Your task to perform on an android device: toggle data saver in the chrome app Image 0: 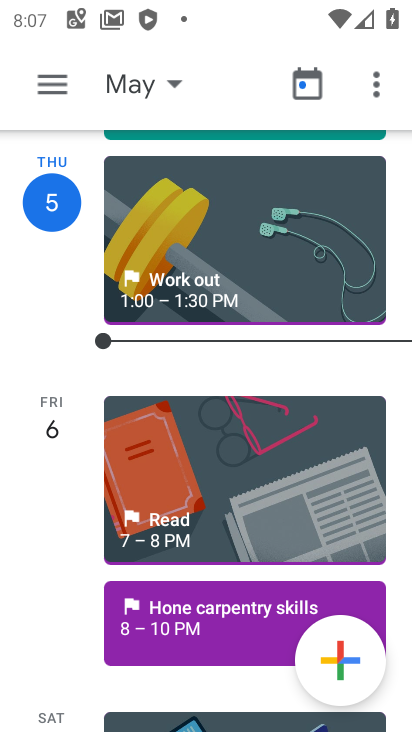
Step 0: press home button
Your task to perform on an android device: toggle data saver in the chrome app Image 1: 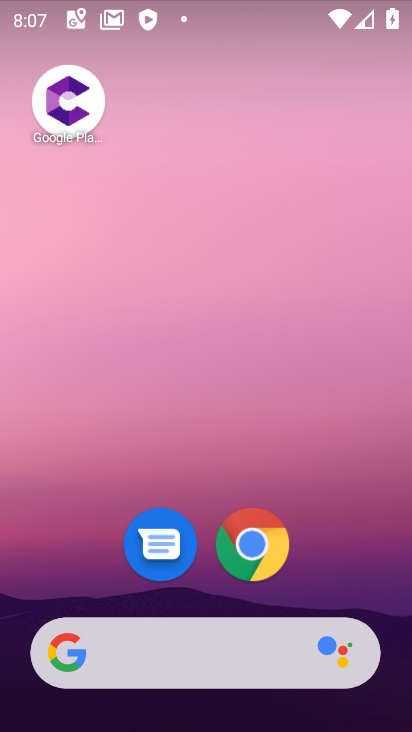
Step 1: drag from (390, 637) to (323, 144)
Your task to perform on an android device: toggle data saver in the chrome app Image 2: 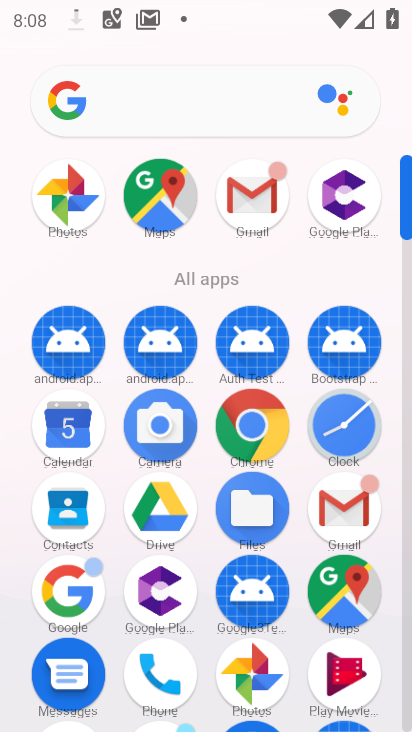
Step 2: click (244, 430)
Your task to perform on an android device: toggle data saver in the chrome app Image 3: 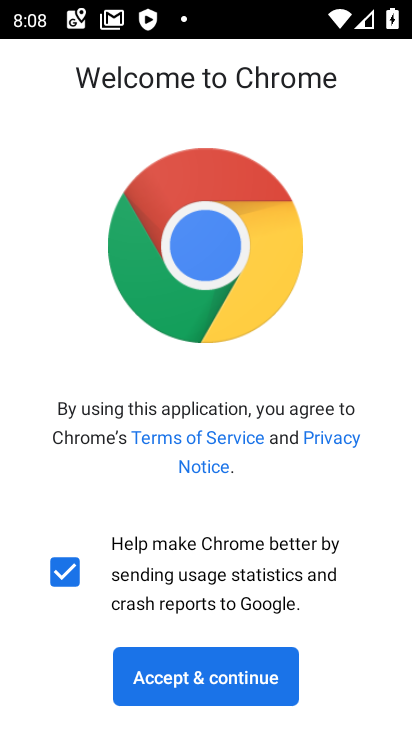
Step 3: click (230, 664)
Your task to perform on an android device: toggle data saver in the chrome app Image 4: 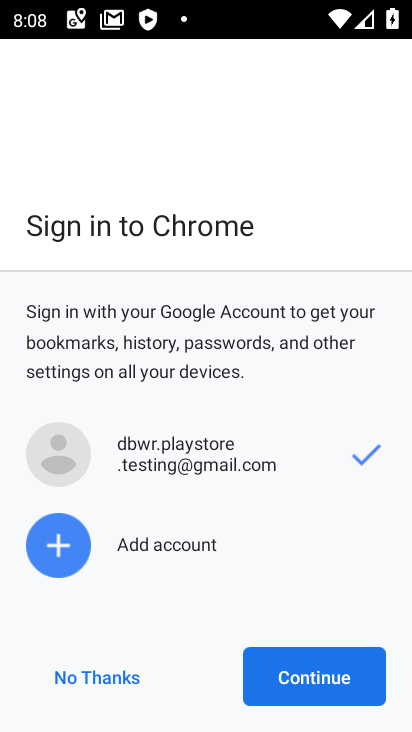
Step 4: click (309, 671)
Your task to perform on an android device: toggle data saver in the chrome app Image 5: 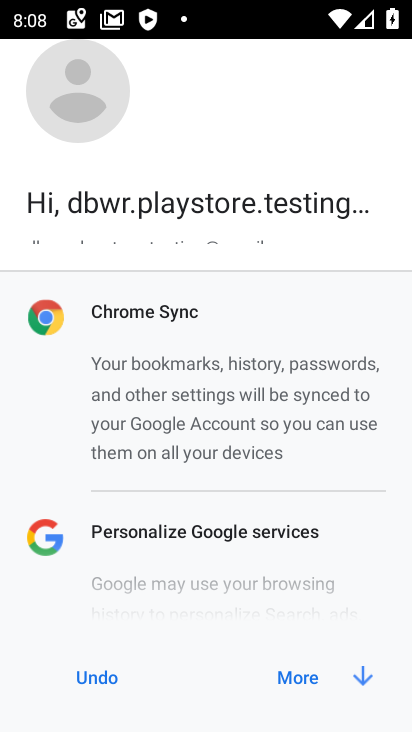
Step 5: click (283, 675)
Your task to perform on an android device: toggle data saver in the chrome app Image 6: 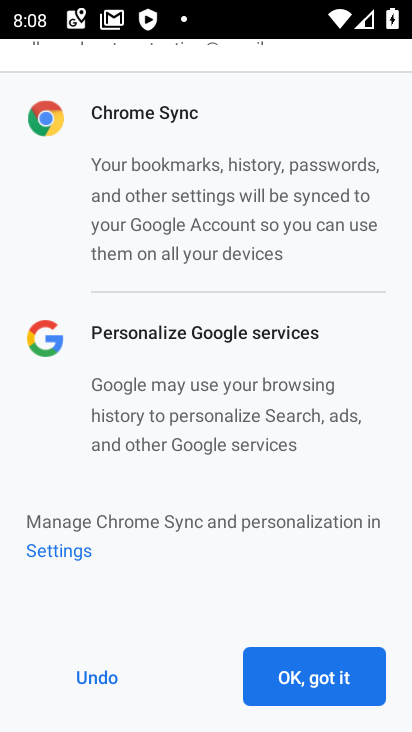
Step 6: click (283, 675)
Your task to perform on an android device: toggle data saver in the chrome app Image 7: 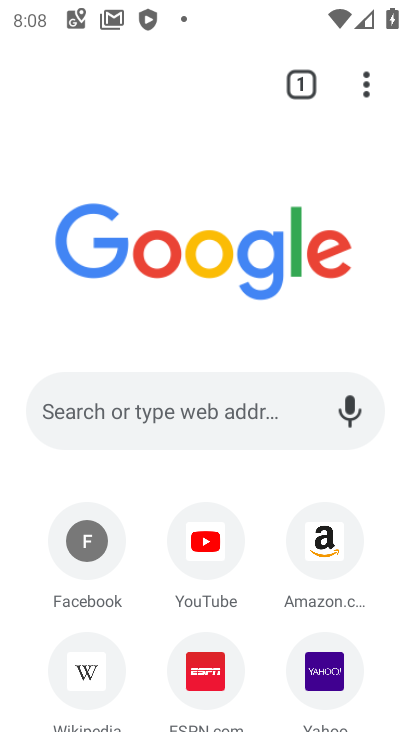
Step 7: click (363, 75)
Your task to perform on an android device: toggle data saver in the chrome app Image 8: 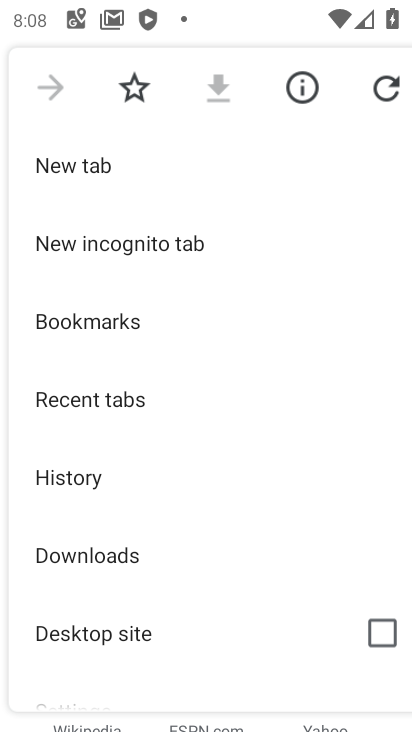
Step 8: drag from (138, 625) to (210, 200)
Your task to perform on an android device: toggle data saver in the chrome app Image 9: 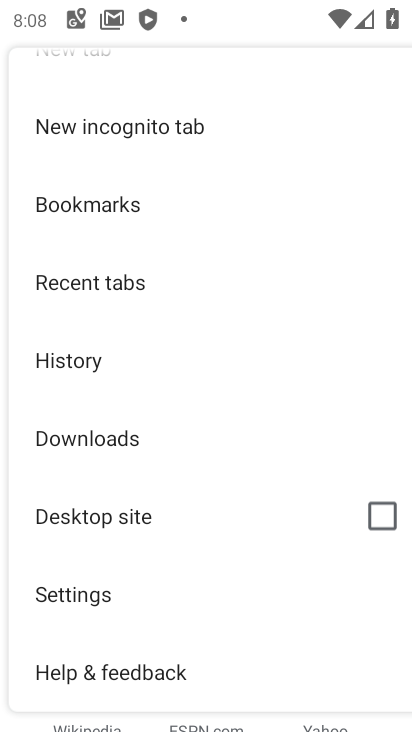
Step 9: click (66, 589)
Your task to perform on an android device: toggle data saver in the chrome app Image 10: 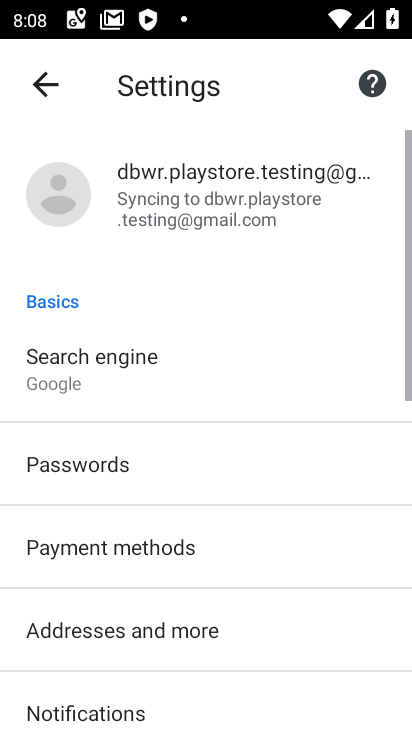
Step 10: drag from (135, 660) to (174, 189)
Your task to perform on an android device: toggle data saver in the chrome app Image 11: 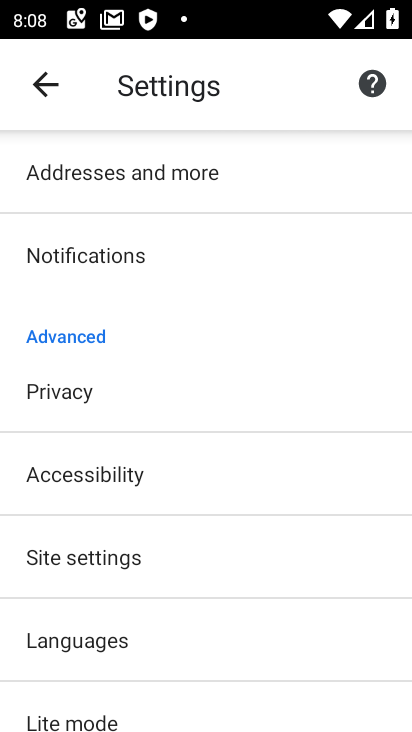
Step 11: drag from (96, 677) to (154, 462)
Your task to perform on an android device: toggle data saver in the chrome app Image 12: 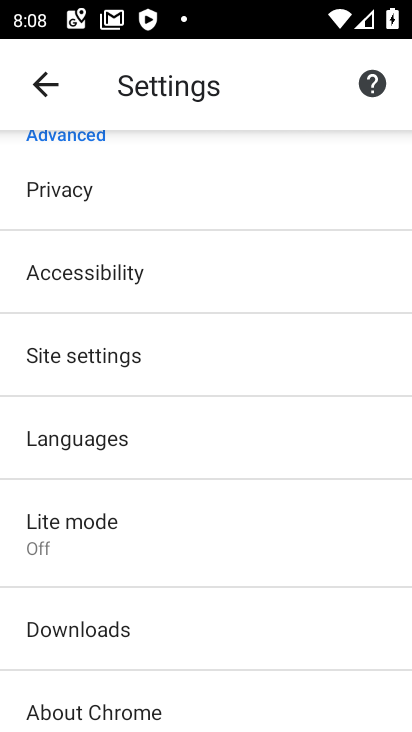
Step 12: click (175, 544)
Your task to perform on an android device: toggle data saver in the chrome app Image 13: 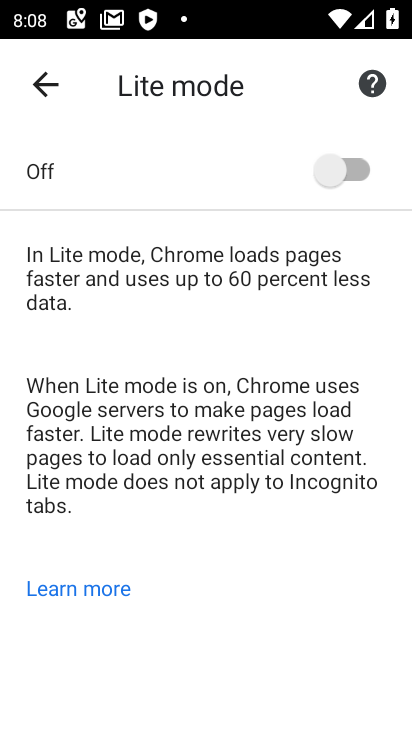
Step 13: click (313, 186)
Your task to perform on an android device: toggle data saver in the chrome app Image 14: 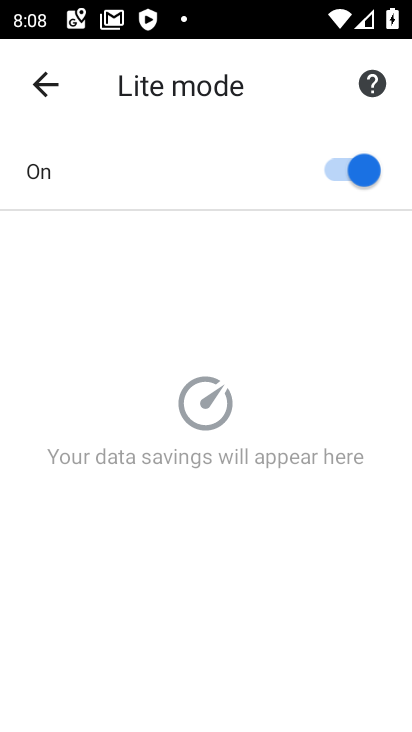
Step 14: task complete